Your task to perform on an android device: turn on priority inbox in the gmail app Image 0: 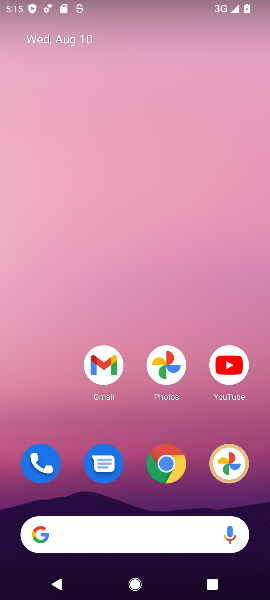
Step 0: click (100, 363)
Your task to perform on an android device: turn on priority inbox in the gmail app Image 1: 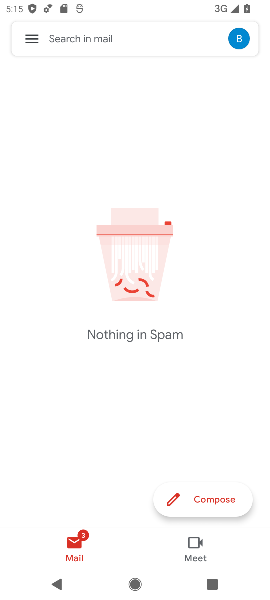
Step 1: click (28, 37)
Your task to perform on an android device: turn on priority inbox in the gmail app Image 2: 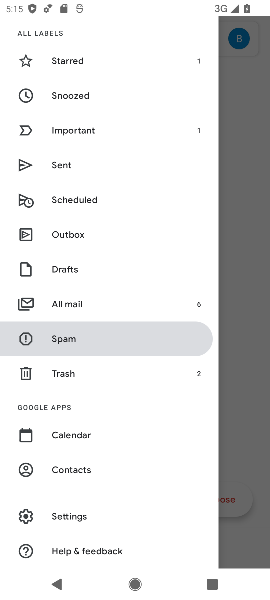
Step 2: click (64, 515)
Your task to perform on an android device: turn on priority inbox in the gmail app Image 3: 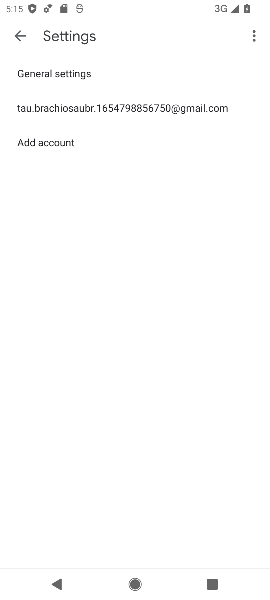
Step 3: click (85, 103)
Your task to perform on an android device: turn on priority inbox in the gmail app Image 4: 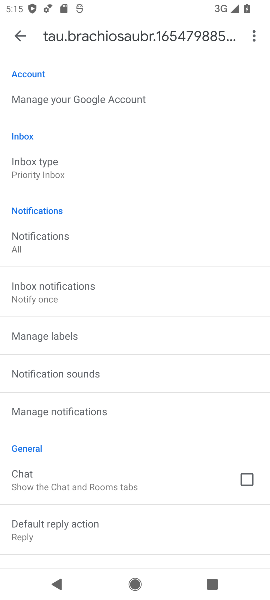
Step 4: task complete